Your task to perform on an android device: choose inbox layout in the gmail app Image 0: 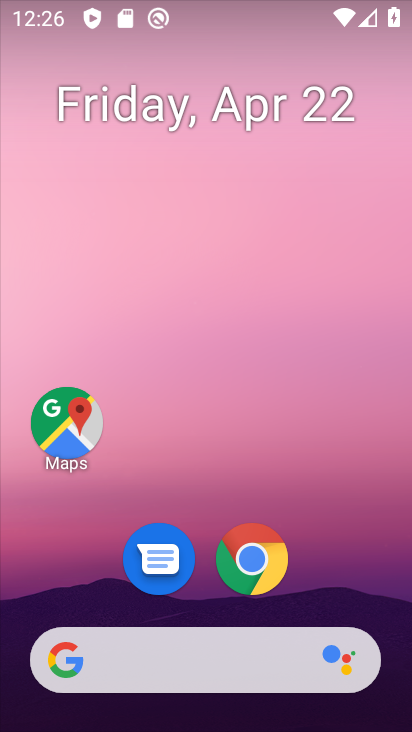
Step 0: drag from (378, 587) to (377, 179)
Your task to perform on an android device: choose inbox layout in the gmail app Image 1: 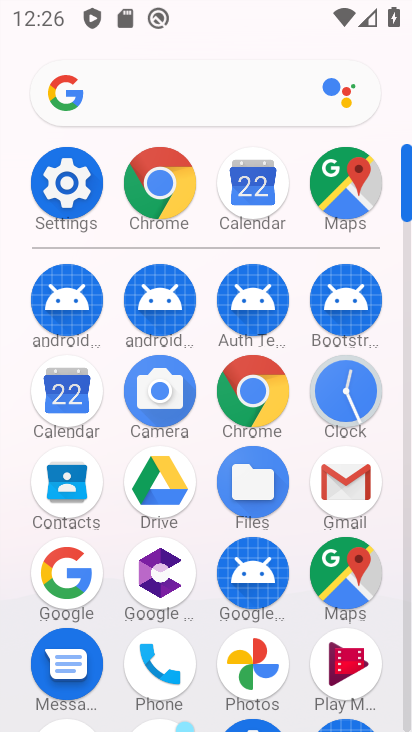
Step 1: click (355, 490)
Your task to perform on an android device: choose inbox layout in the gmail app Image 2: 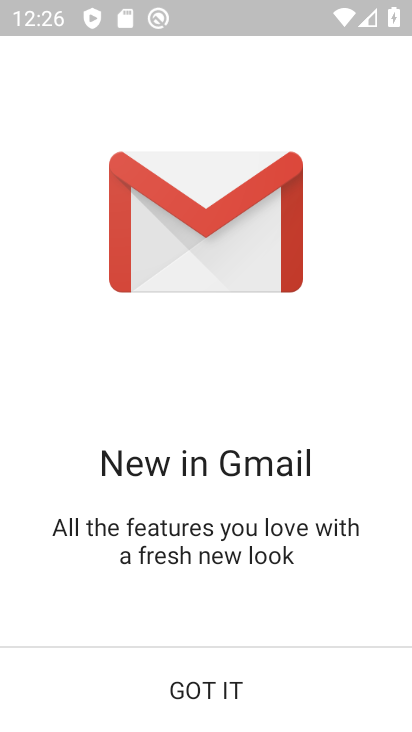
Step 2: click (223, 692)
Your task to perform on an android device: choose inbox layout in the gmail app Image 3: 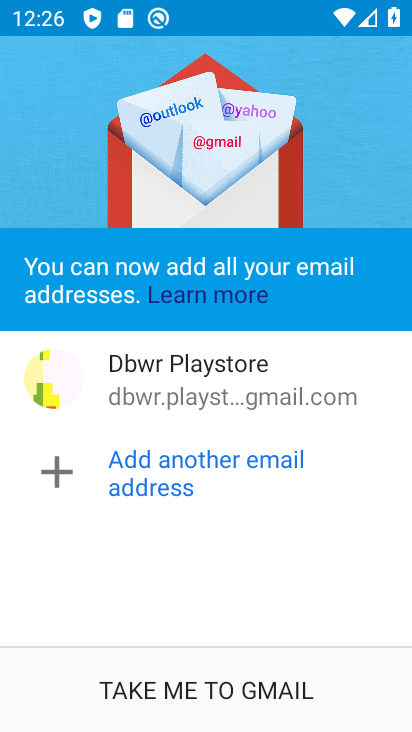
Step 3: click (279, 687)
Your task to perform on an android device: choose inbox layout in the gmail app Image 4: 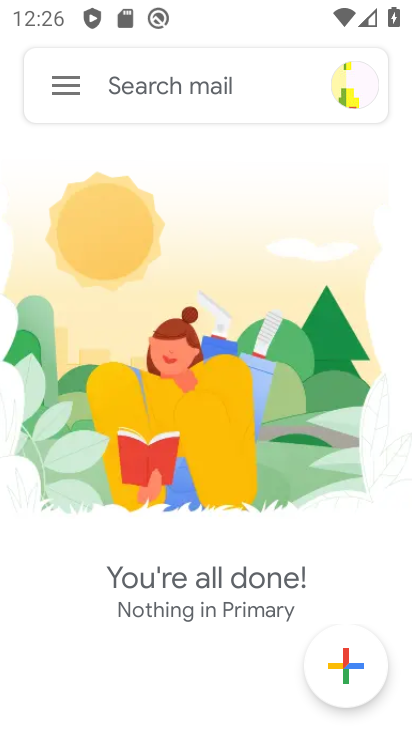
Step 4: click (57, 86)
Your task to perform on an android device: choose inbox layout in the gmail app Image 5: 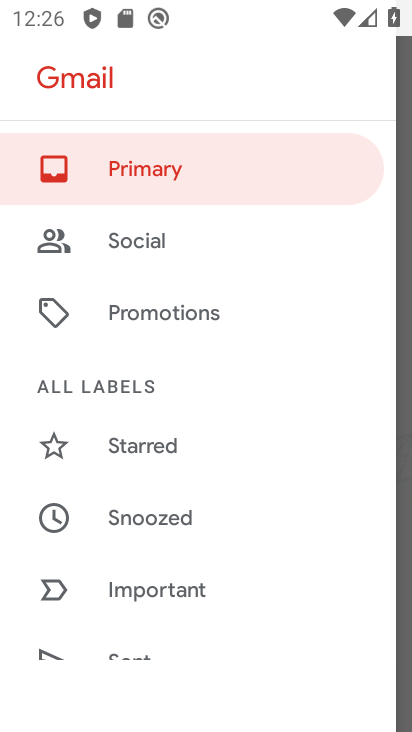
Step 5: drag from (327, 592) to (335, 422)
Your task to perform on an android device: choose inbox layout in the gmail app Image 6: 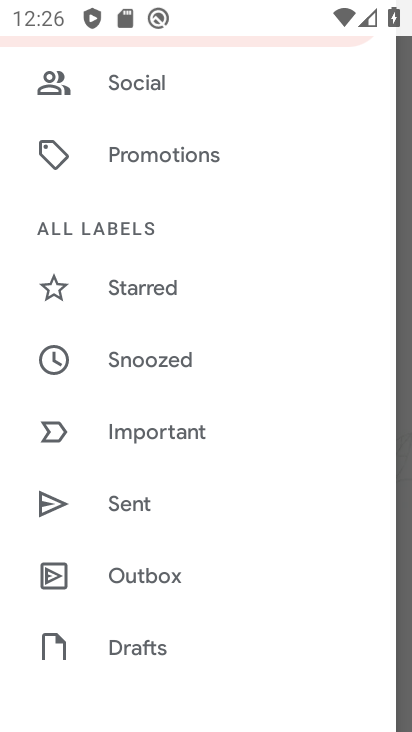
Step 6: drag from (317, 609) to (332, 417)
Your task to perform on an android device: choose inbox layout in the gmail app Image 7: 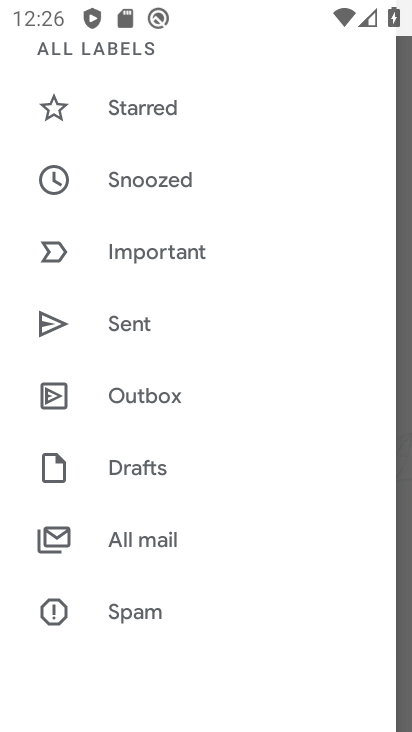
Step 7: drag from (300, 606) to (313, 425)
Your task to perform on an android device: choose inbox layout in the gmail app Image 8: 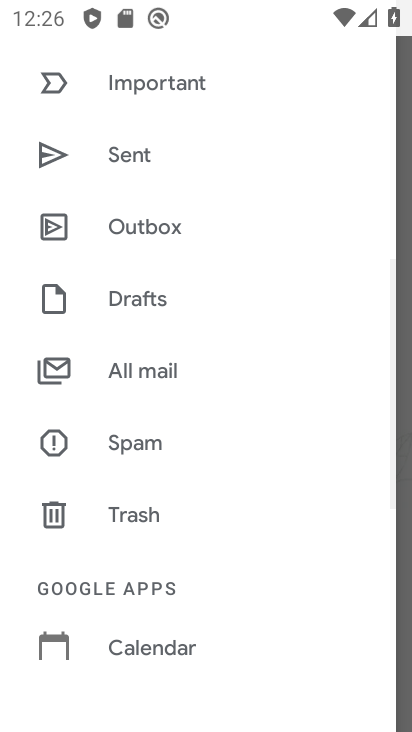
Step 8: drag from (302, 606) to (306, 447)
Your task to perform on an android device: choose inbox layout in the gmail app Image 9: 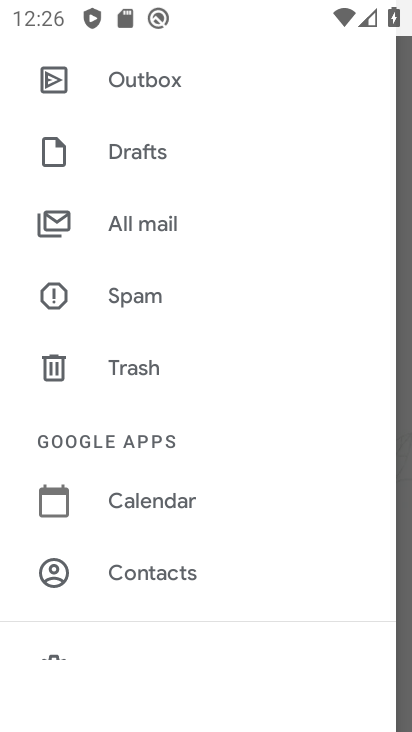
Step 9: drag from (322, 595) to (334, 445)
Your task to perform on an android device: choose inbox layout in the gmail app Image 10: 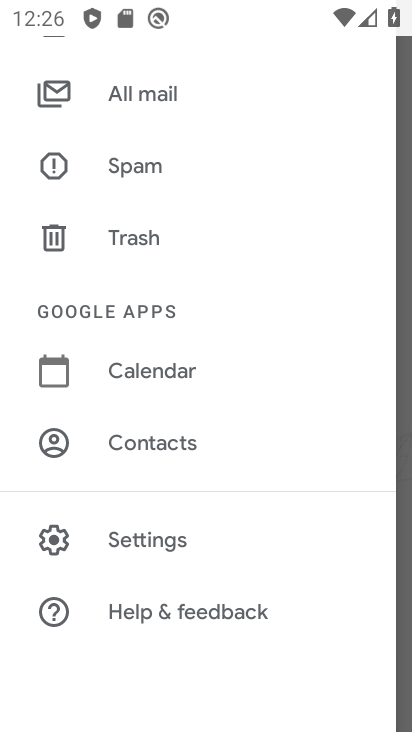
Step 10: click (170, 538)
Your task to perform on an android device: choose inbox layout in the gmail app Image 11: 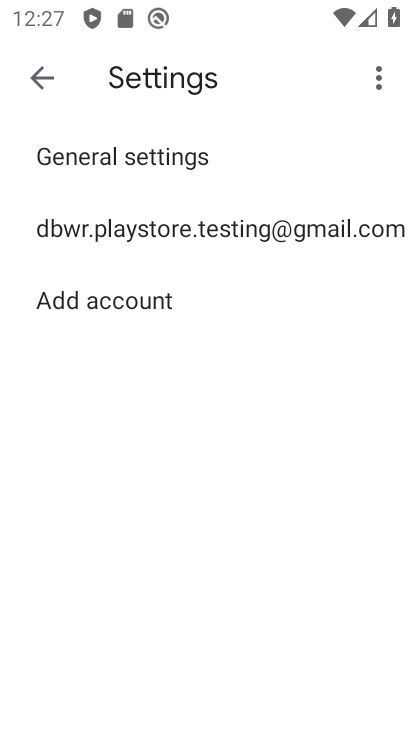
Step 11: click (239, 220)
Your task to perform on an android device: choose inbox layout in the gmail app Image 12: 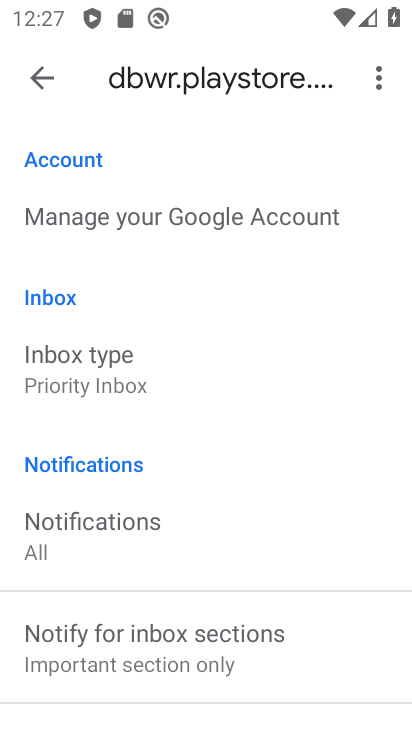
Step 12: click (116, 372)
Your task to perform on an android device: choose inbox layout in the gmail app Image 13: 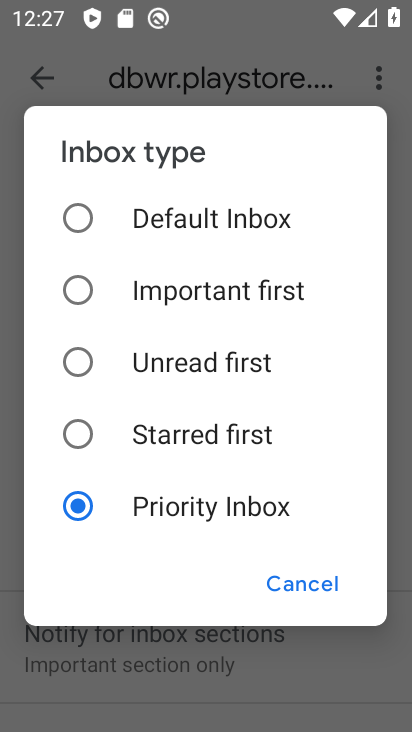
Step 13: click (77, 213)
Your task to perform on an android device: choose inbox layout in the gmail app Image 14: 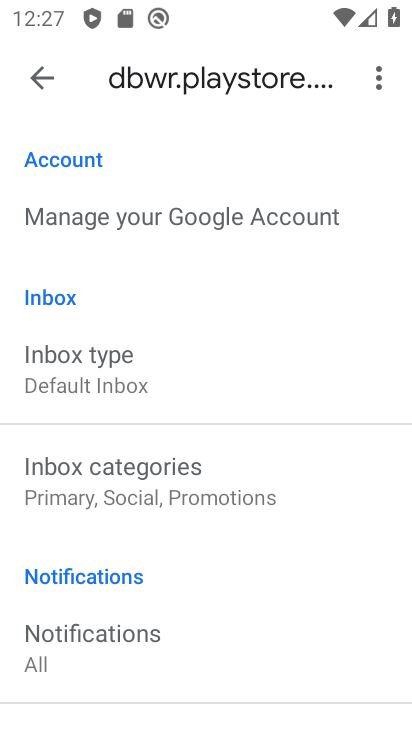
Step 14: task complete